Your task to perform on an android device: add a label to a message in the gmail app Image 0: 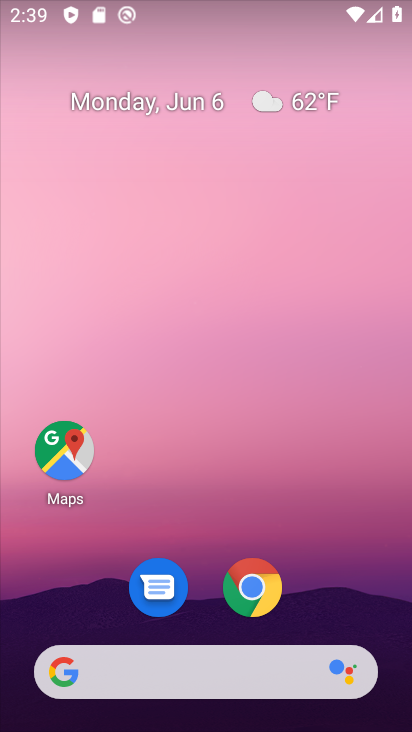
Step 0: drag from (201, 641) to (209, 234)
Your task to perform on an android device: add a label to a message in the gmail app Image 1: 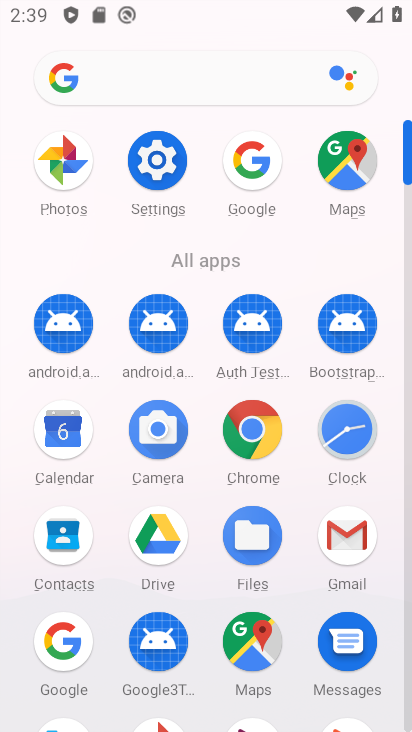
Step 1: click (340, 530)
Your task to perform on an android device: add a label to a message in the gmail app Image 2: 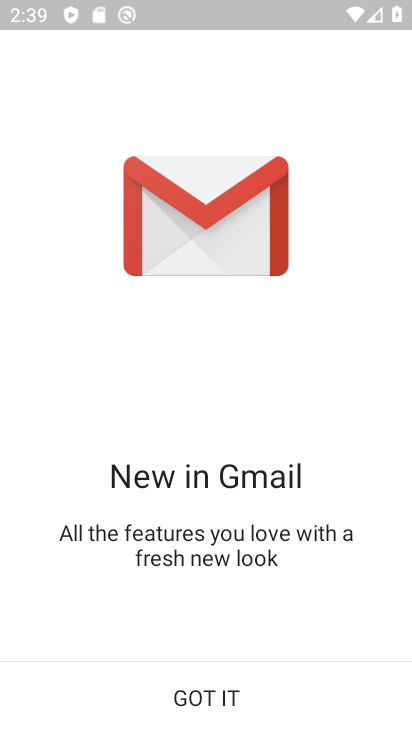
Step 2: click (181, 697)
Your task to perform on an android device: add a label to a message in the gmail app Image 3: 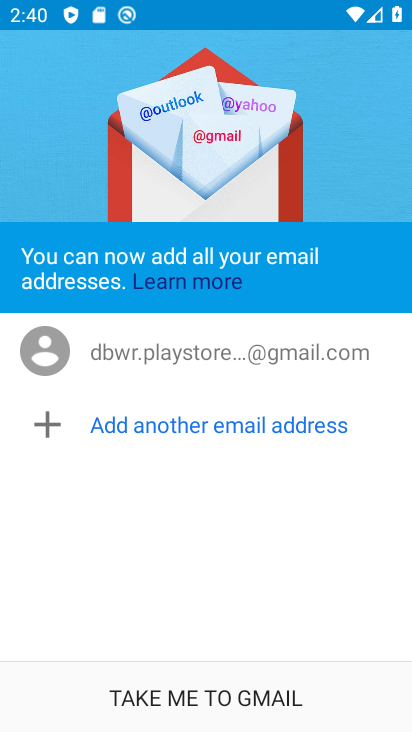
Step 3: click (181, 695)
Your task to perform on an android device: add a label to a message in the gmail app Image 4: 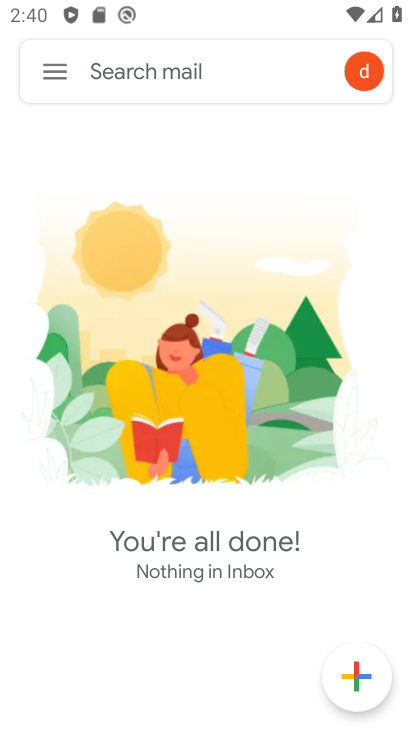
Step 4: task complete